Your task to perform on an android device: Go to Android settings Image 0: 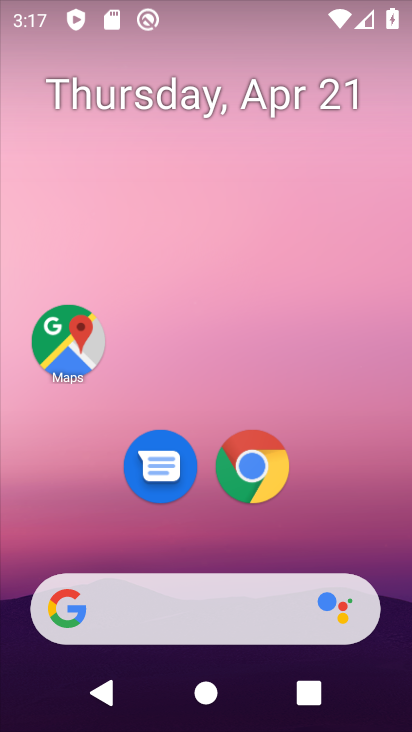
Step 0: drag from (218, 543) to (199, 96)
Your task to perform on an android device: Go to Android settings Image 1: 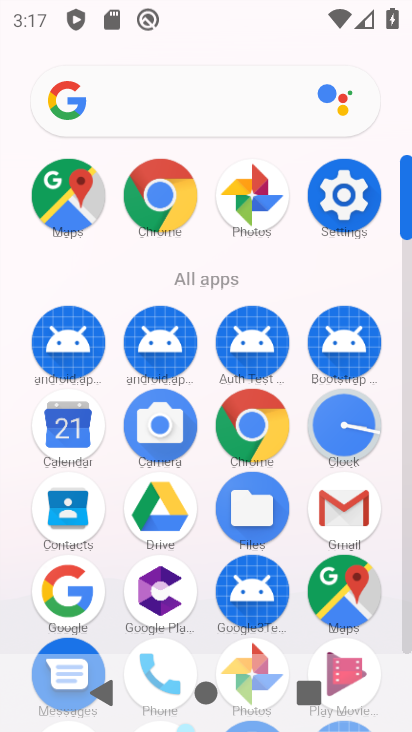
Step 1: click (332, 174)
Your task to perform on an android device: Go to Android settings Image 2: 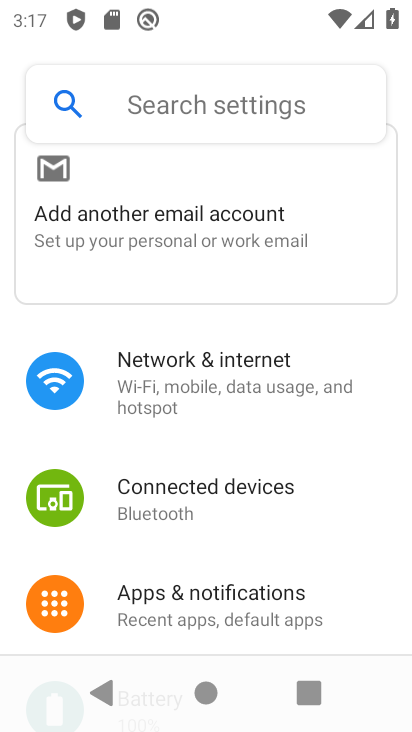
Step 2: task complete